Your task to perform on an android device: Open the calendar app, open the side menu, and click the "Day" option Image 0: 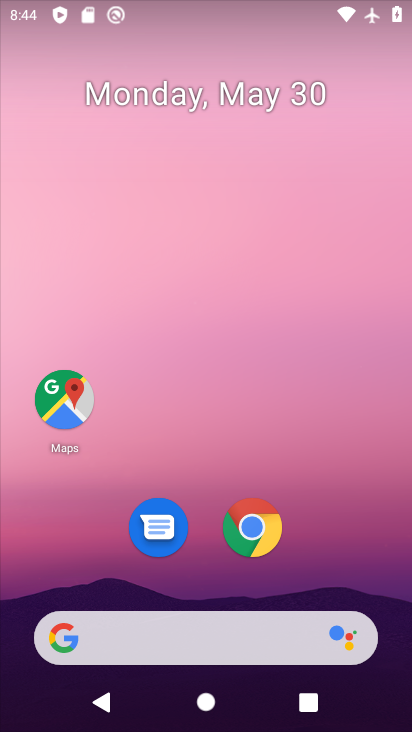
Step 0: drag from (316, 551) to (313, 5)
Your task to perform on an android device: Open the calendar app, open the side menu, and click the "Day" option Image 1: 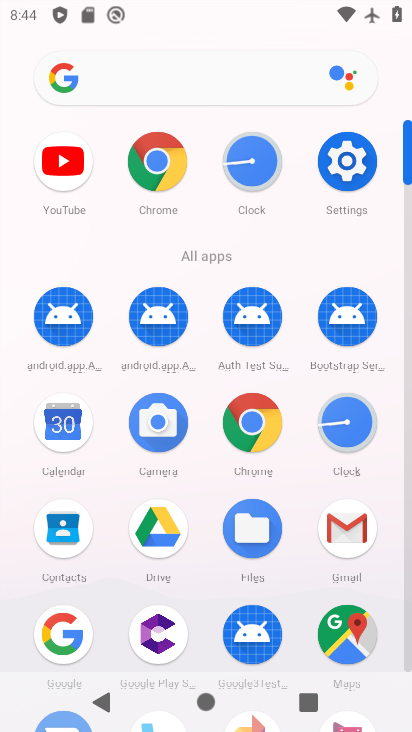
Step 1: click (64, 426)
Your task to perform on an android device: Open the calendar app, open the side menu, and click the "Day" option Image 2: 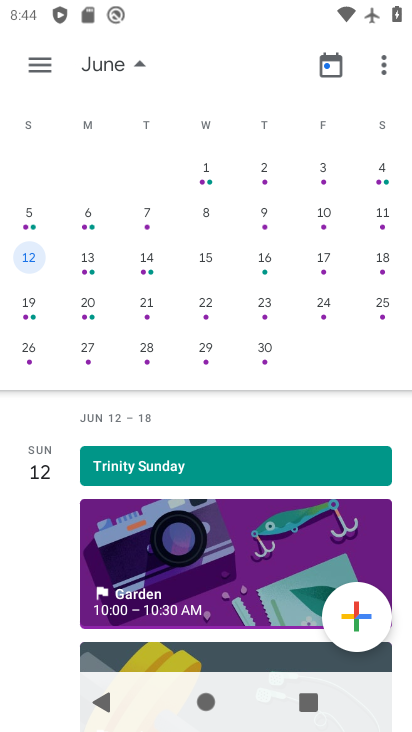
Step 2: click (46, 68)
Your task to perform on an android device: Open the calendar app, open the side menu, and click the "Day" option Image 3: 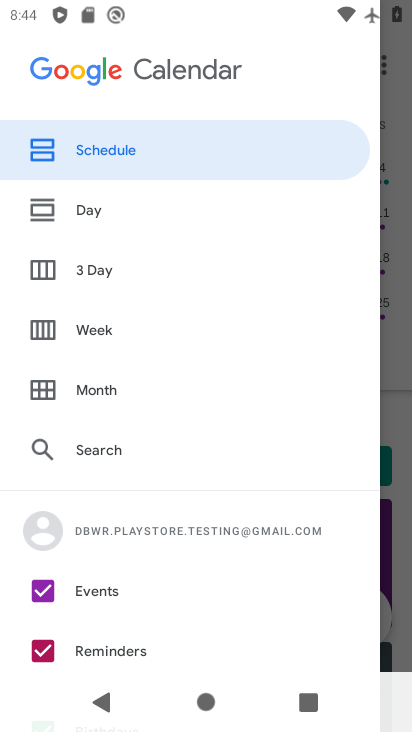
Step 3: click (82, 205)
Your task to perform on an android device: Open the calendar app, open the side menu, and click the "Day" option Image 4: 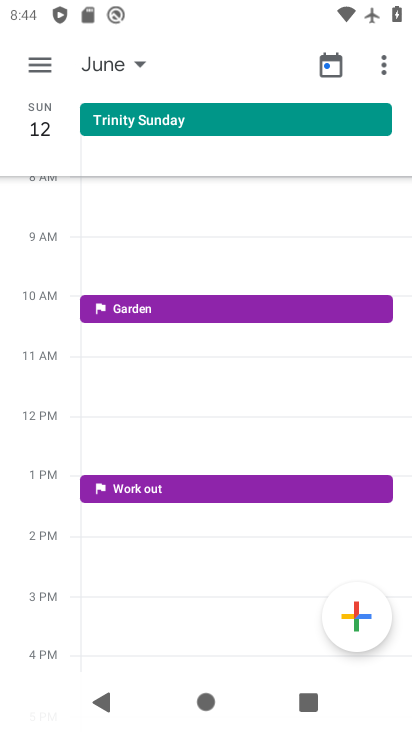
Step 4: task complete